Your task to perform on an android device: set the stopwatch Image 0: 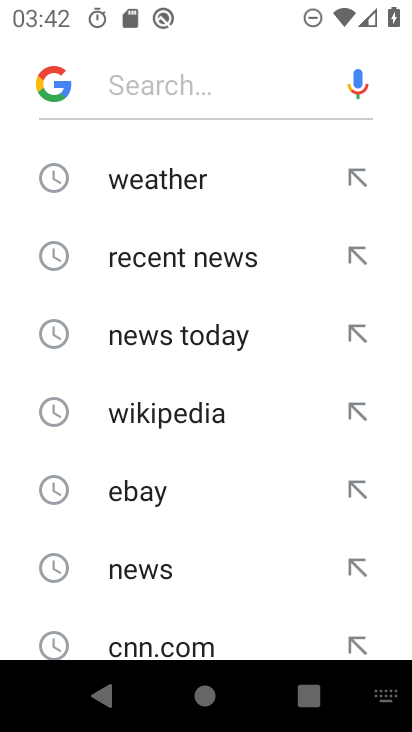
Step 0: press back button
Your task to perform on an android device: set the stopwatch Image 1: 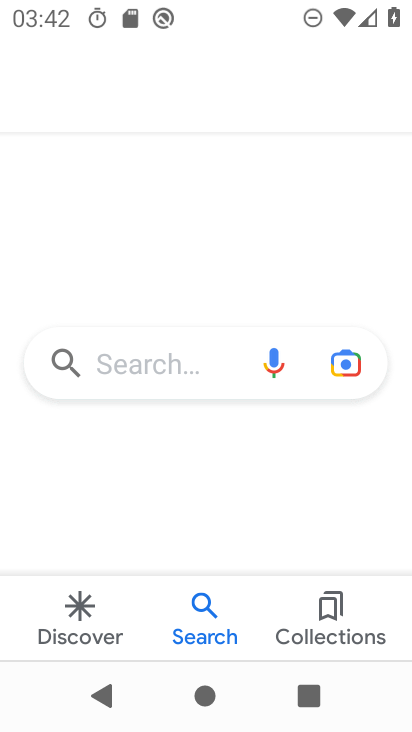
Step 1: press back button
Your task to perform on an android device: set the stopwatch Image 2: 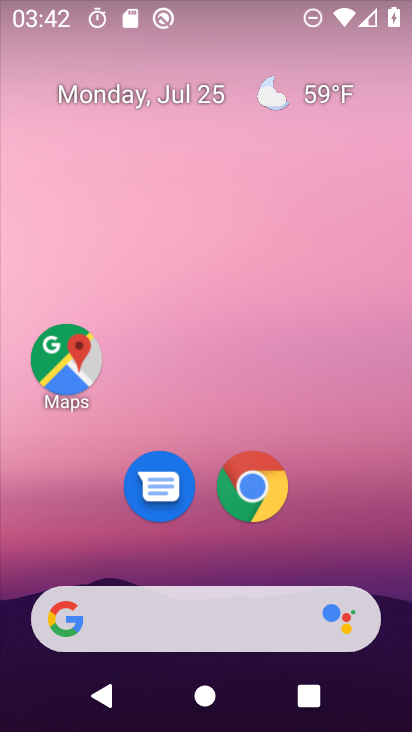
Step 2: drag from (176, 555) to (249, 45)
Your task to perform on an android device: set the stopwatch Image 3: 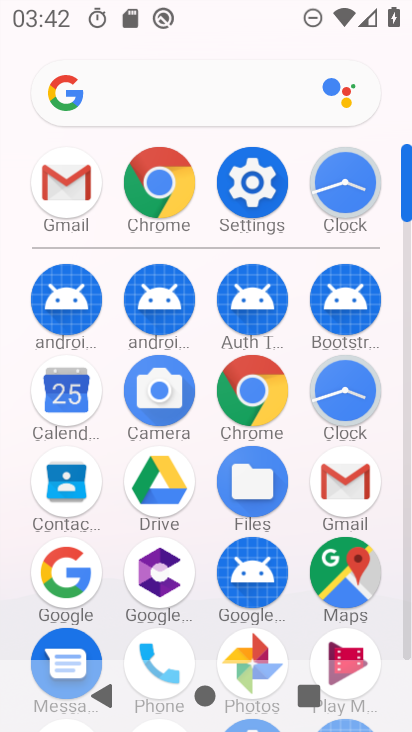
Step 3: click (342, 186)
Your task to perform on an android device: set the stopwatch Image 4: 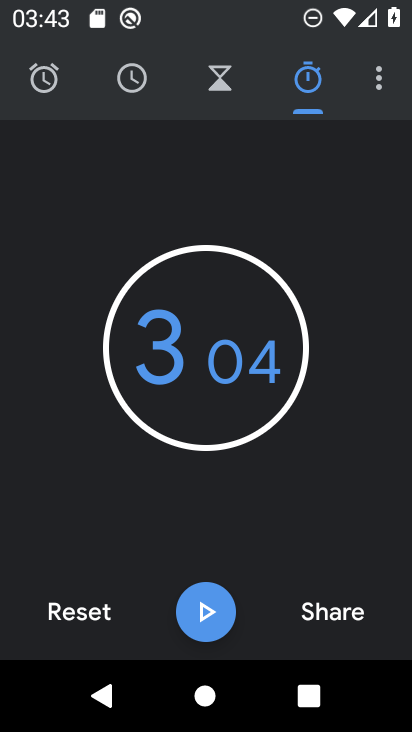
Step 4: task complete